Your task to perform on an android device: open a bookmark in the chrome app Image 0: 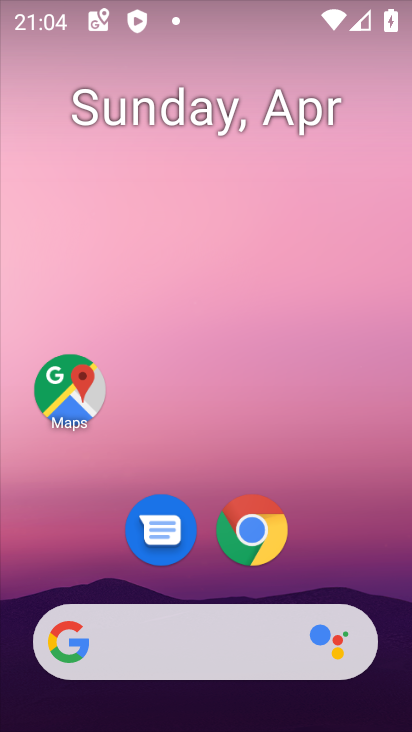
Step 0: click (261, 530)
Your task to perform on an android device: open a bookmark in the chrome app Image 1: 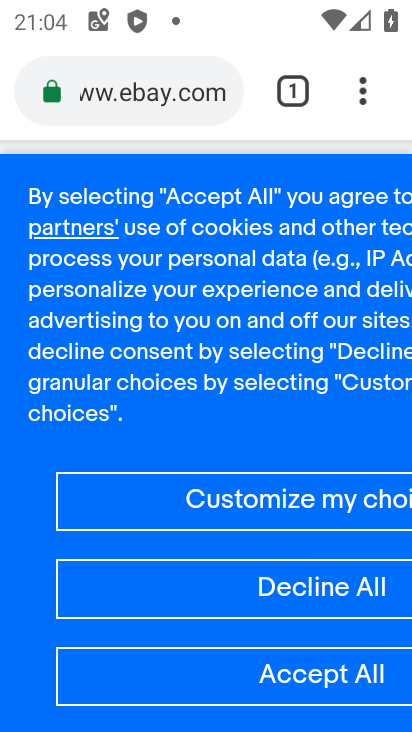
Step 1: click (360, 90)
Your task to perform on an android device: open a bookmark in the chrome app Image 2: 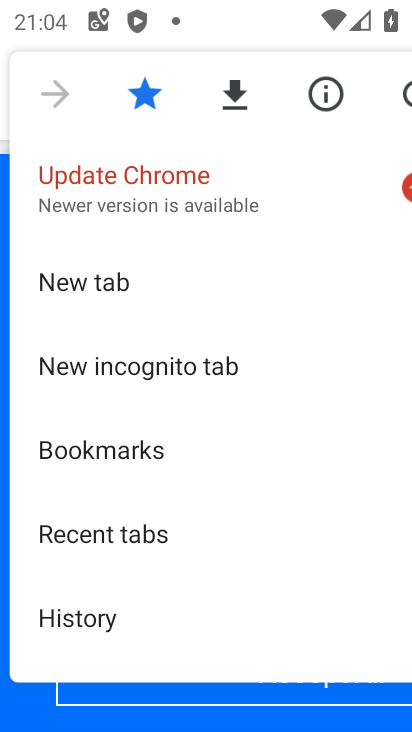
Step 2: click (115, 448)
Your task to perform on an android device: open a bookmark in the chrome app Image 3: 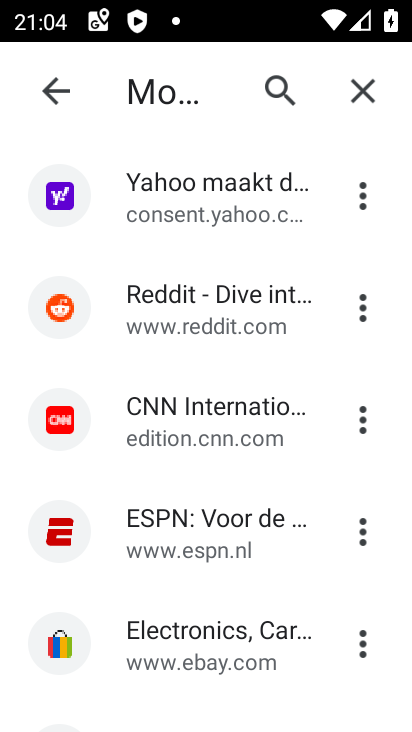
Step 3: task complete